Your task to perform on an android device: turn off data saver in the chrome app Image 0: 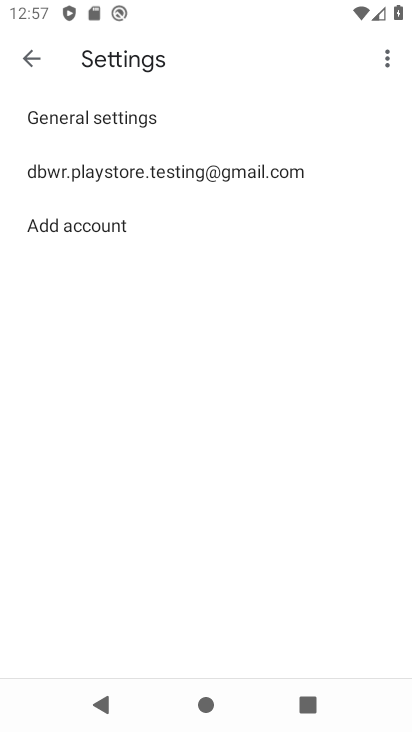
Step 0: press home button
Your task to perform on an android device: turn off data saver in the chrome app Image 1: 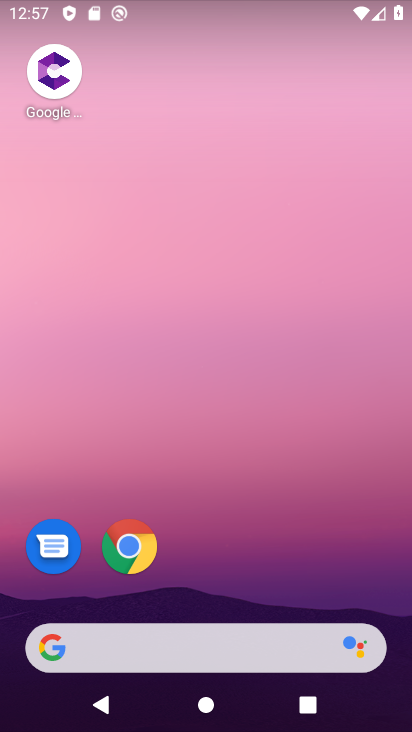
Step 1: drag from (213, 625) to (238, 71)
Your task to perform on an android device: turn off data saver in the chrome app Image 2: 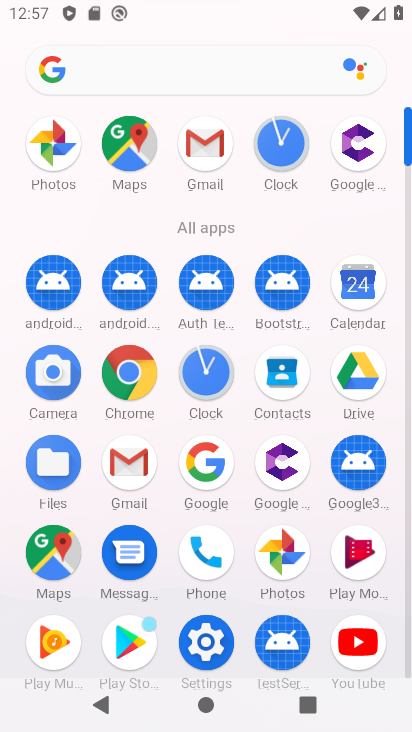
Step 2: click (130, 373)
Your task to perform on an android device: turn off data saver in the chrome app Image 3: 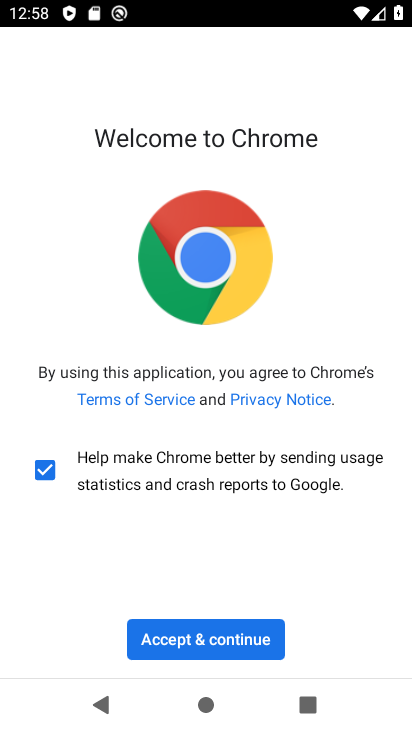
Step 3: click (184, 642)
Your task to perform on an android device: turn off data saver in the chrome app Image 4: 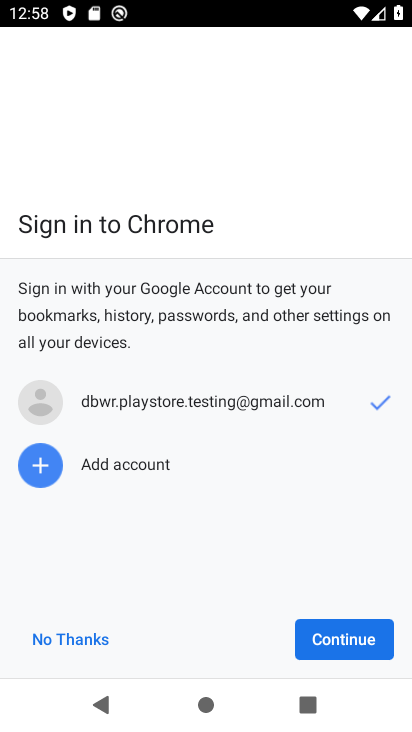
Step 4: click (368, 629)
Your task to perform on an android device: turn off data saver in the chrome app Image 5: 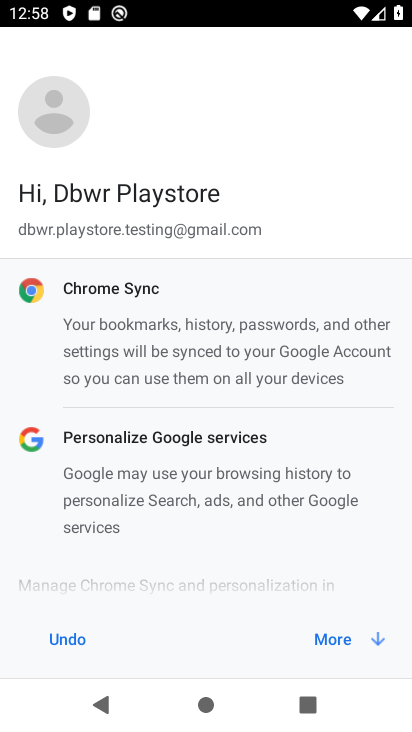
Step 5: click (339, 641)
Your task to perform on an android device: turn off data saver in the chrome app Image 6: 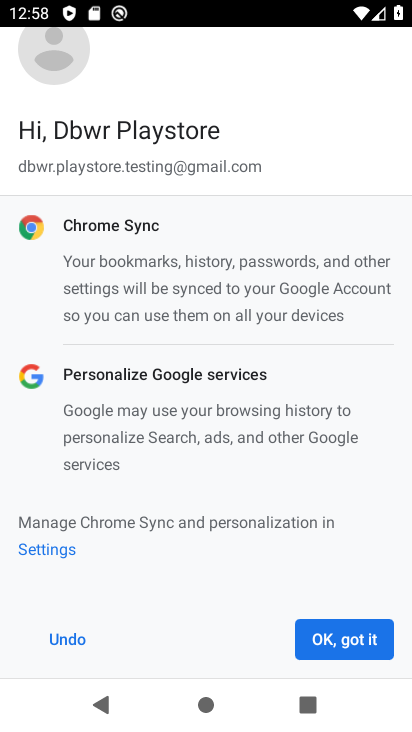
Step 6: click (347, 615)
Your task to perform on an android device: turn off data saver in the chrome app Image 7: 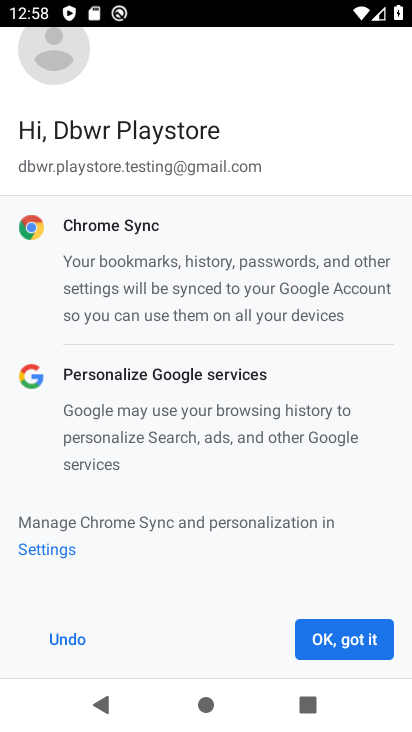
Step 7: click (328, 629)
Your task to perform on an android device: turn off data saver in the chrome app Image 8: 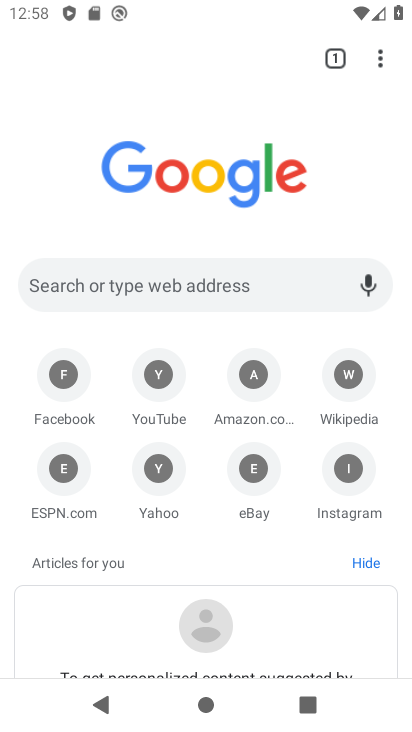
Step 8: drag from (262, 571) to (338, 188)
Your task to perform on an android device: turn off data saver in the chrome app Image 9: 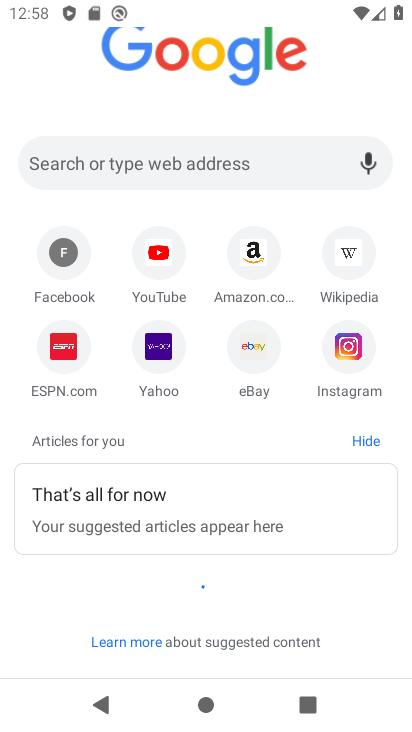
Step 9: drag from (393, 79) to (360, 447)
Your task to perform on an android device: turn off data saver in the chrome app Image 10: 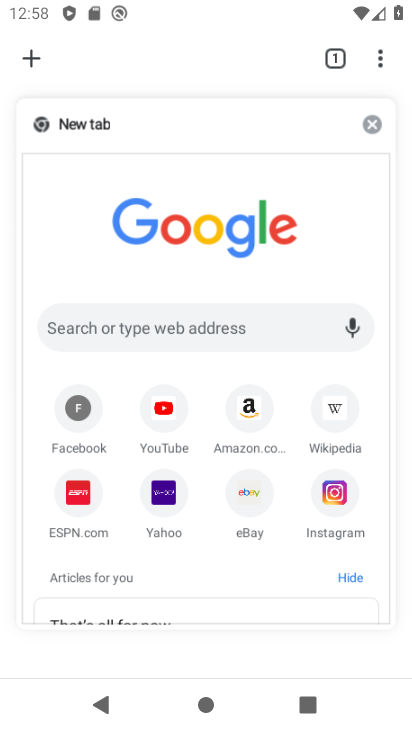
Step 10: click (257, 208)
Your task to perform on an android device: turn off data saver in the chrome app Image 11: 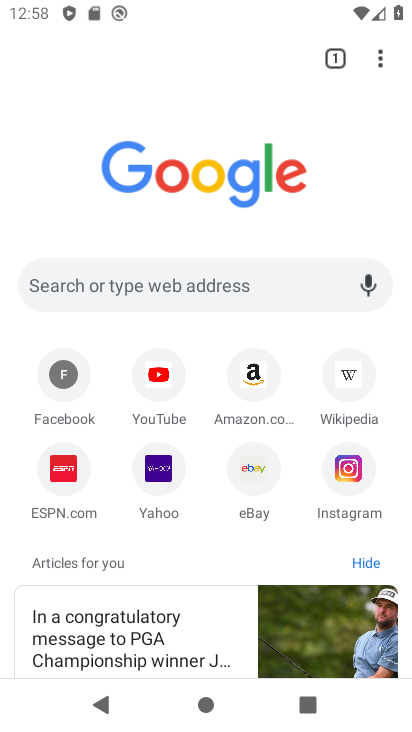
Step 11: click (378, 59)
Your task to perform on an android device: turn off data saver in the chrome app Image 12: 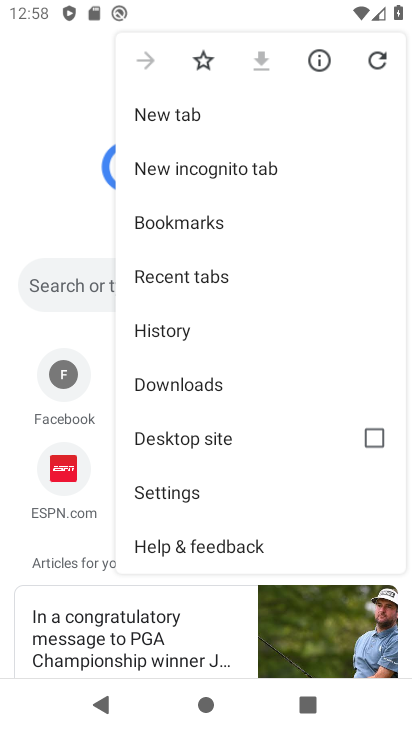
Step 12: drag from (251, 433) to (307, 120)
Your task to perform on an android device: turn off data saver in the chrome app Image 13: 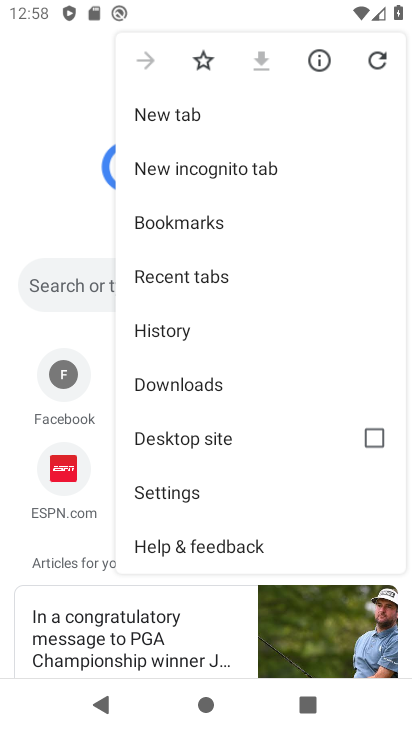
Step 13: click (183, 490)
Your task to perform on an android device: turn off data saver in the chrome app Image 14: 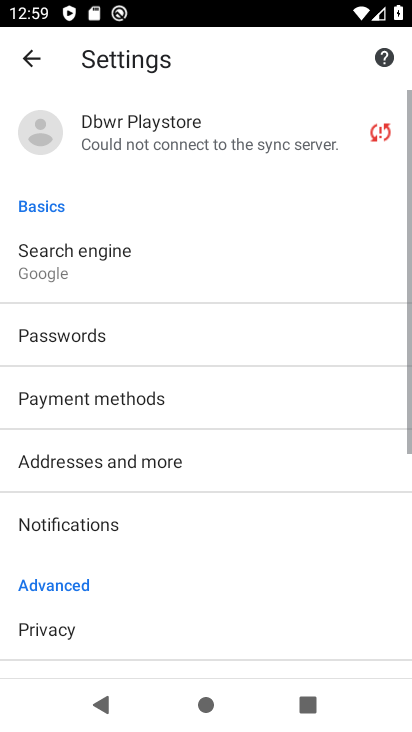
Step 14: drag from (258, 495) to (356, 0)
Your task to perform on an android device: turn off data saver in the chrome app Image 15: 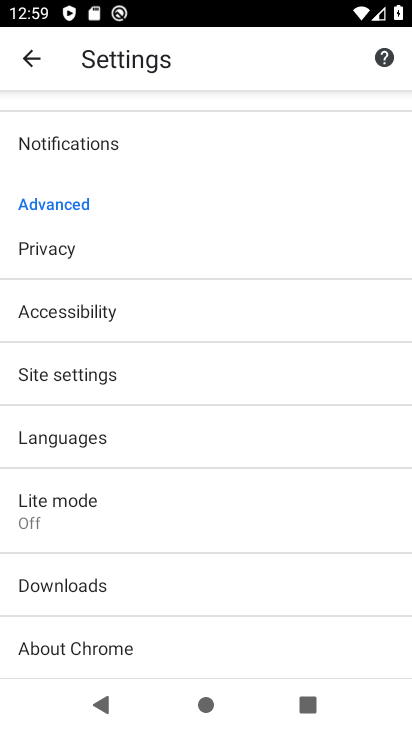
Step 15: drag from (199, 566) to (243, 124)
Your task to perform on an android device: turn off data saver in the chrome app Image 16: 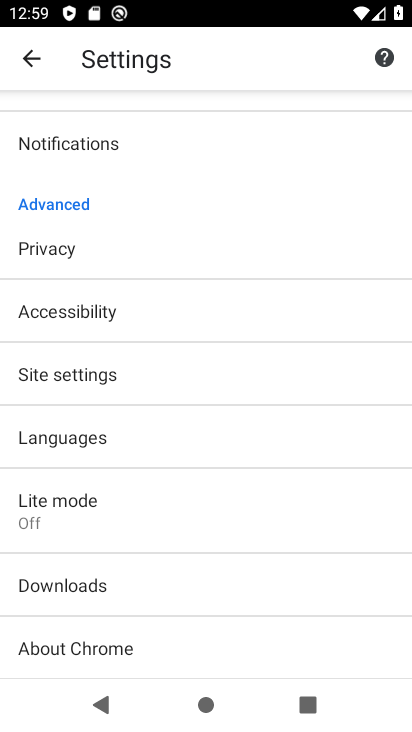
Step 16: click (95, 516)
Your task to perform on an android device: turn off data saver in the chrome app Image 17: 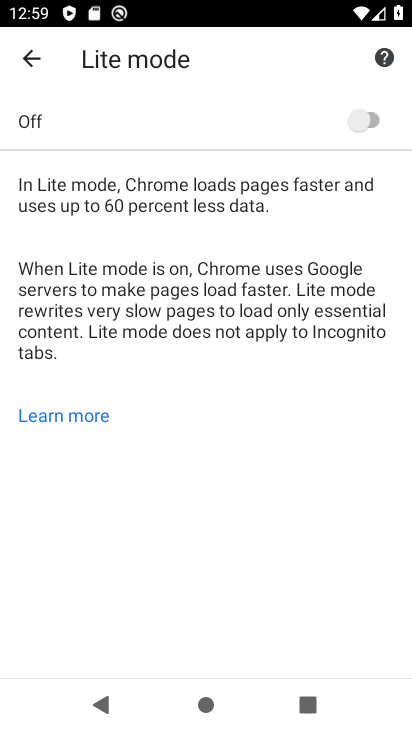
Step 17: task complete